Your task to perform on an android device: Open Google Maps Image 0: 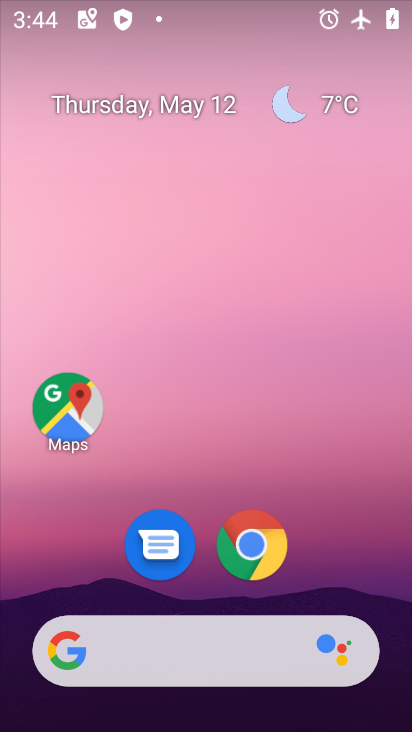
Step 0: click (69, 407)
Your task to perform on an android device: Open Google Maps Image 1: 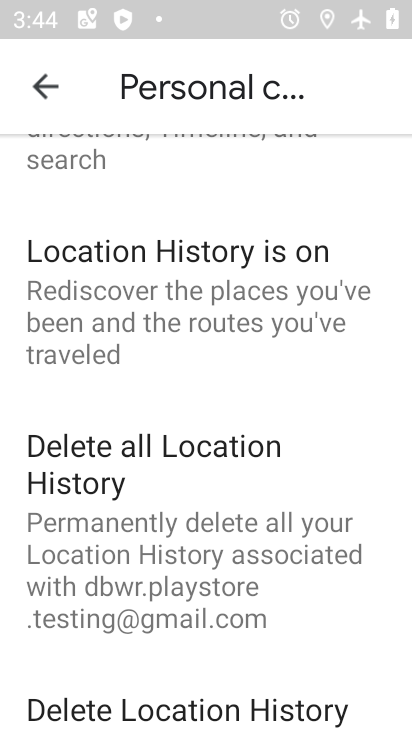
Step 1: press back button
Your task to perform on an android device: Open Google Maps Image 2: 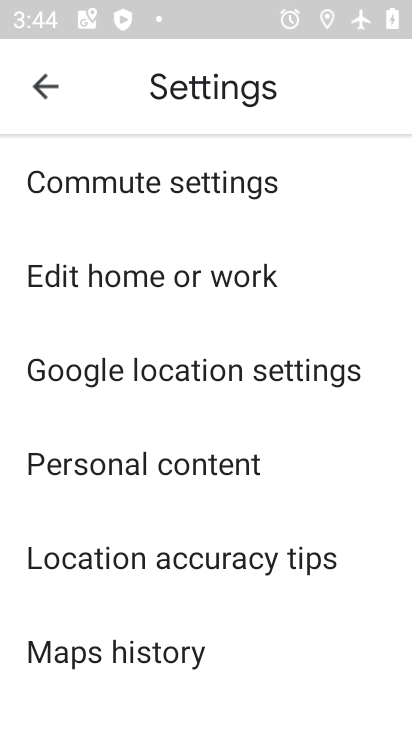
Step 2: press back button
Your task to perform on an android device: Open Google Maps Image 3: 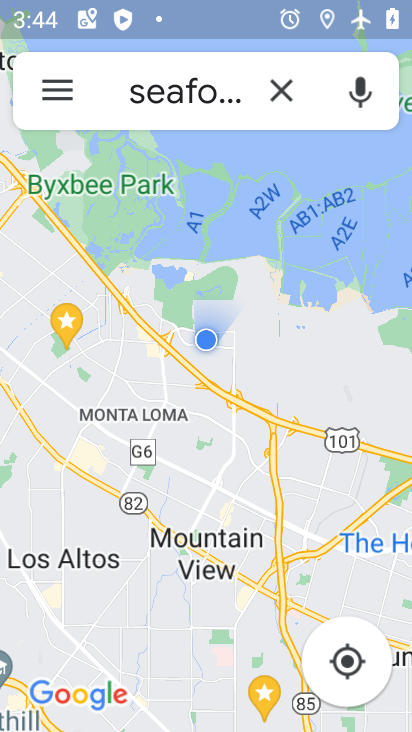
Step 3: click (276, 86)
Your task to perform on an android device: Open Google Maps Image 4: 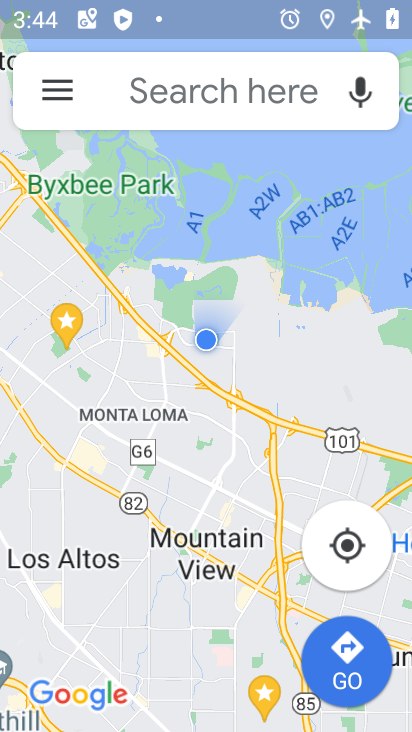
Step 4: task complete